Your task to perform on an android device: set an alarm Image 0: 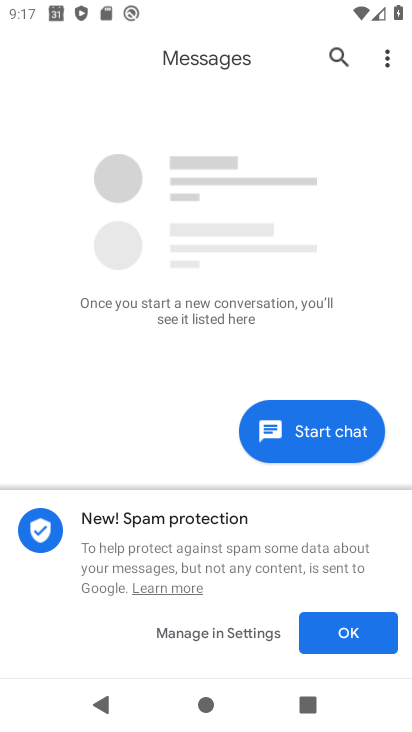
Step 0: press home button
Your task to perform on an android device: set an alarm Image 1: 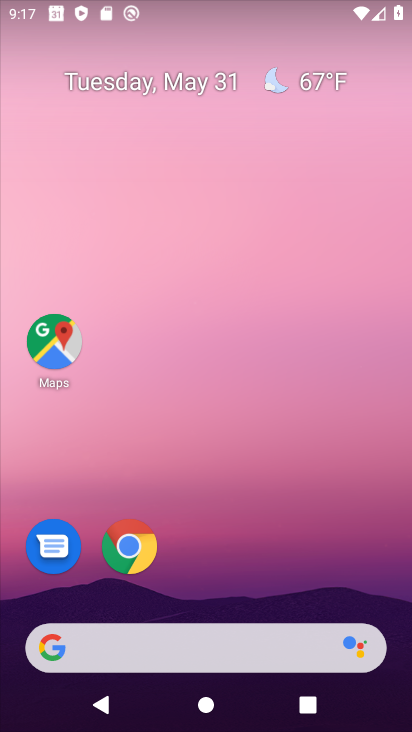
Step 1: drag from (200, 584) to (282, 210)
Your task to perform on an android device: set an alarm Image 2: 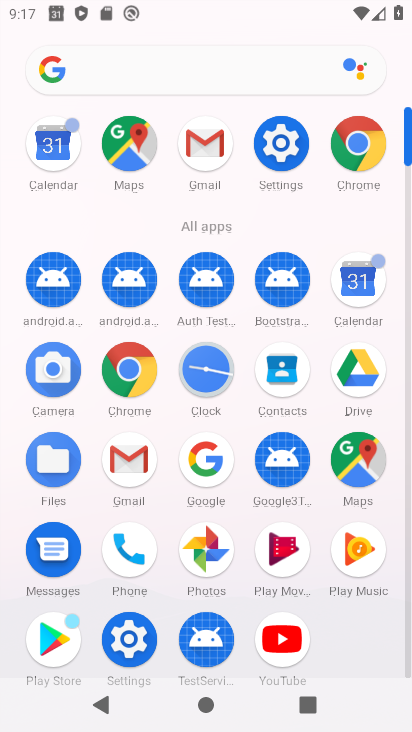
Step 2: drag from (305, 6) to (345, 0)
Your task to perform on an android device: set an alarm Image 3: 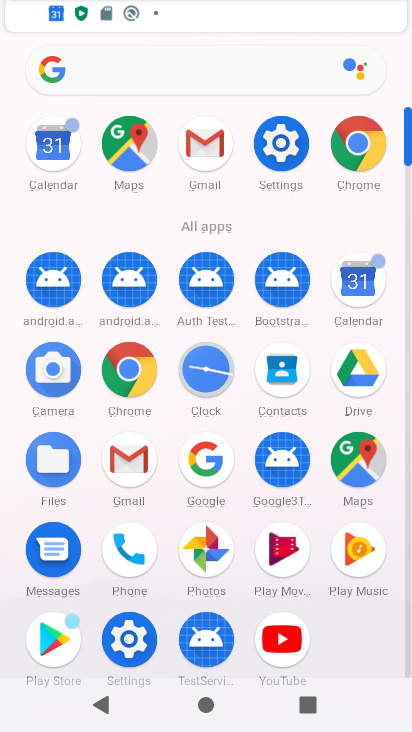
Step 3: click (273, 169)
Your task to perform on an android device: set an alarm Image 4: 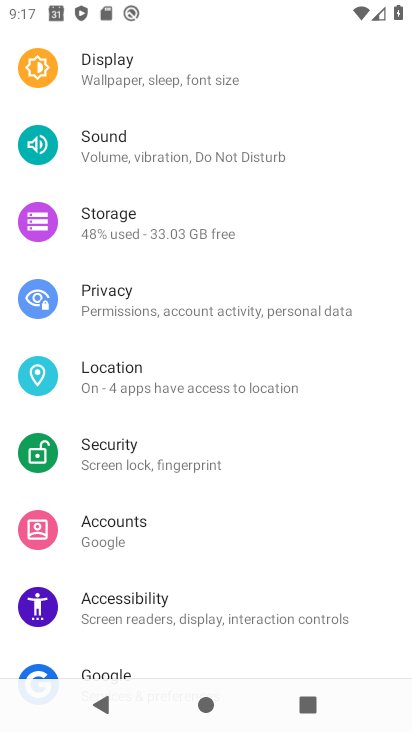
Step 4: press home button
Your task to perform on an android device: set an alarm Image 5: 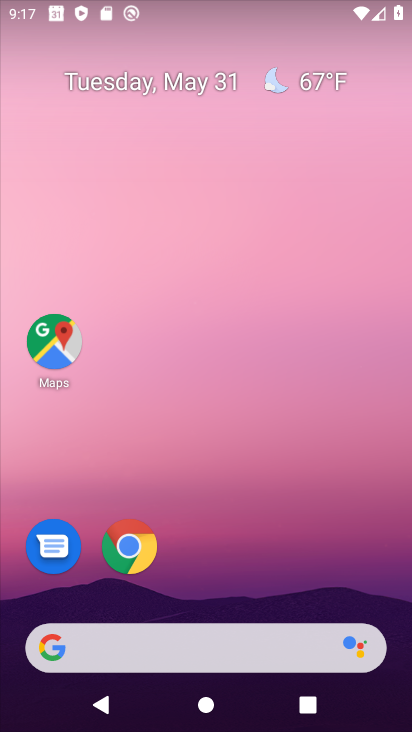
Step 5: drag from (207, 592) to (254, 177)
Your task to perform on an android device: set an alarm Image 6: 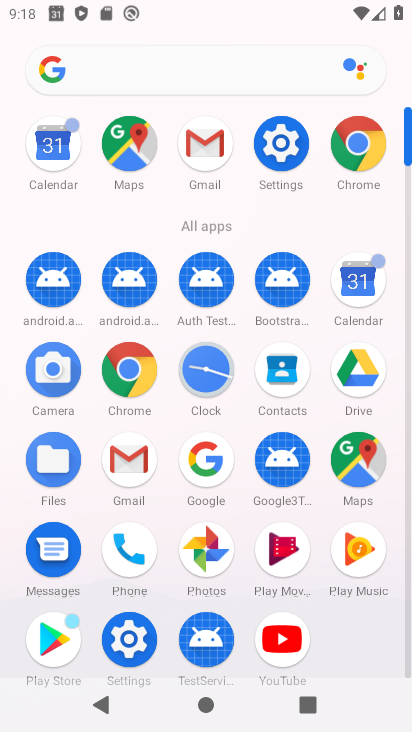
Step 6: click (293, 155)
Your task to perform on an android device: set an alarm Image 7: 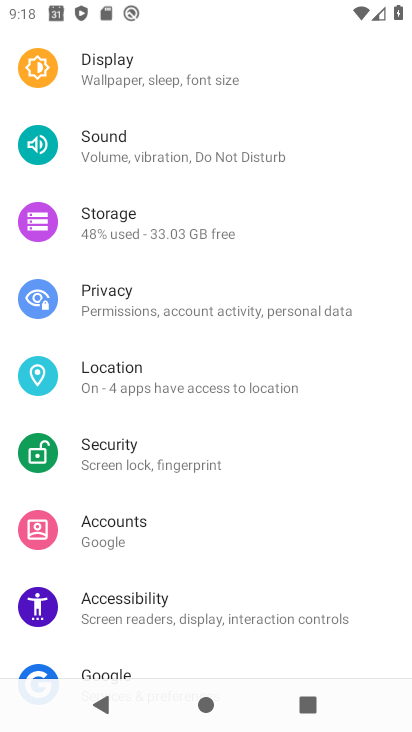
Step 7: press home button
Your task to perform on an android device: set an alarm Image 8: 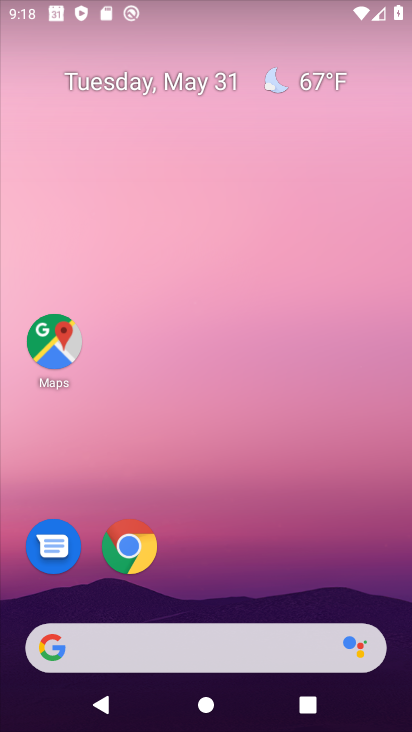
Step 8: drag from (229, 593) to (266, 8)
Your task to perform on an android device: set an alarm Image 9: 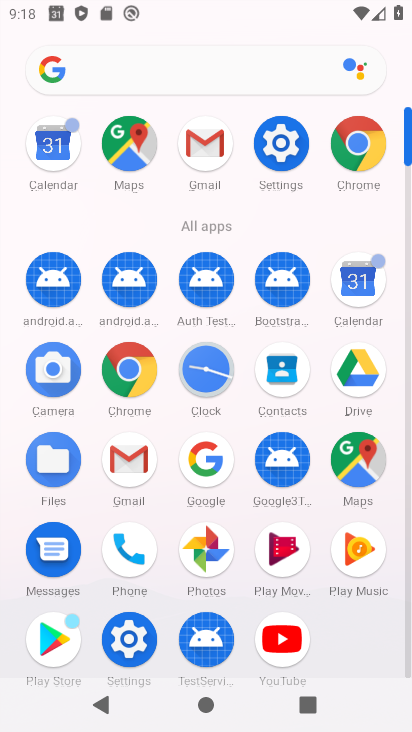
Step 9: click (215, 386)
Your task to perform on an android device: set an alarm Image 10: 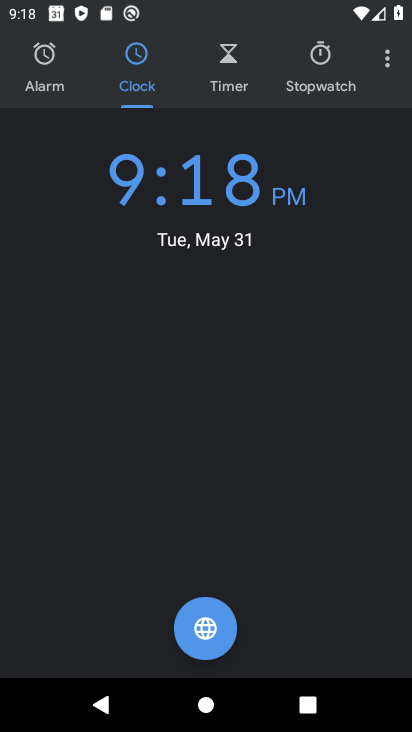
Step 10: click (60, 60)
Your task to perform on an android device: set an alarm Image 11: 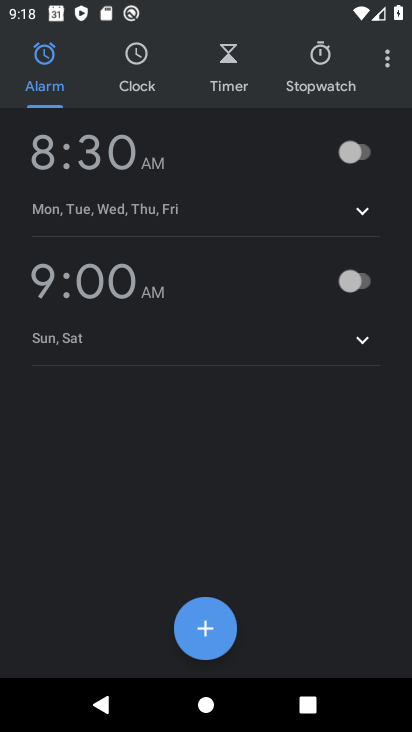
Step 11: click (98, 169)
Your task to perform on an android device: set an alarm Image 12: 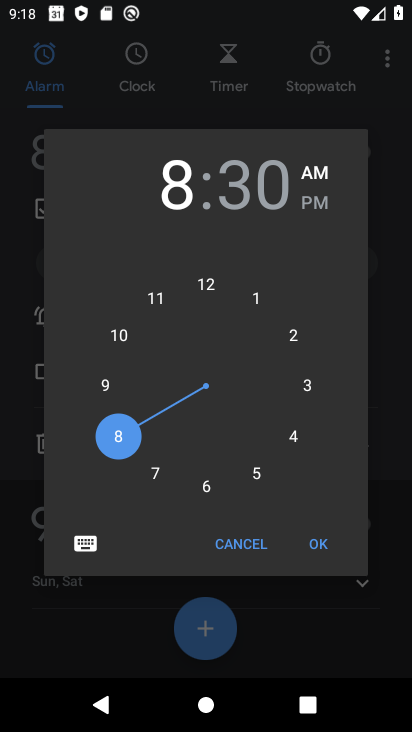
Step 12: click (211, 484)
Your task to perform on an android device: set an alarm Image 13: 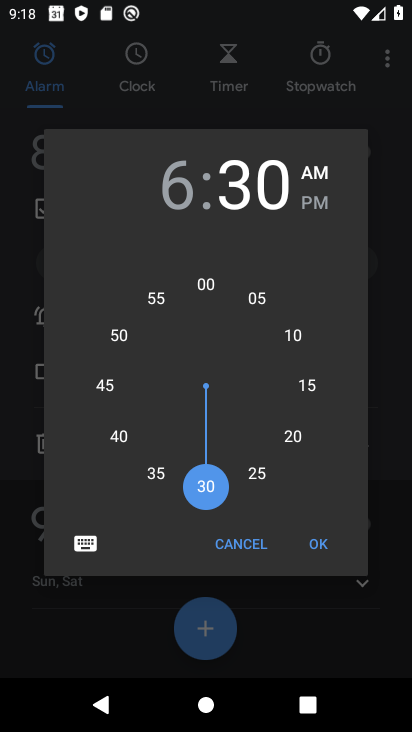
Step 13: click (300, 333)
Your task to perform on an android device: set an alarm Image 14: 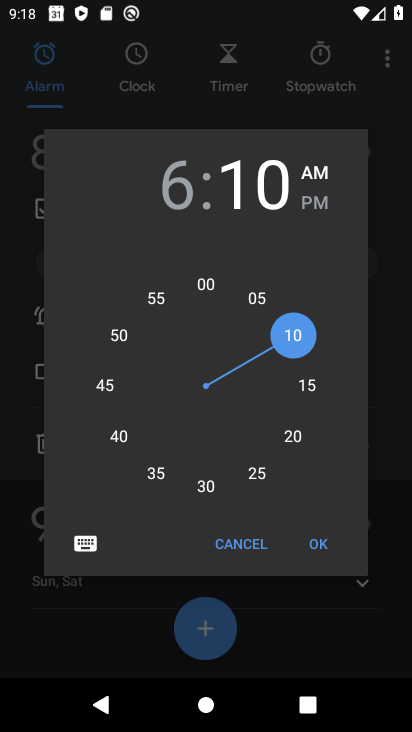
Step 14: click (298, 202)
Your task to perform on an android device: set an alarm Image 15: 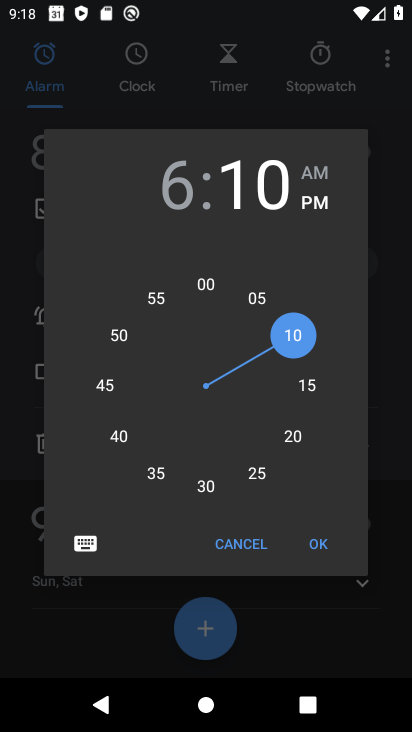
Step 15: click (320, 546)
Your task to perform on an android device: set an alarm Image 16: 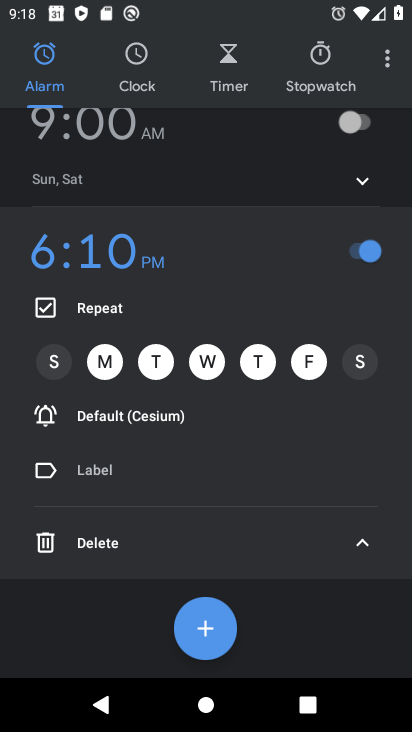
Step 16: task complete